Your task to perform on an android device: turn on bluetooth scan Image 0: 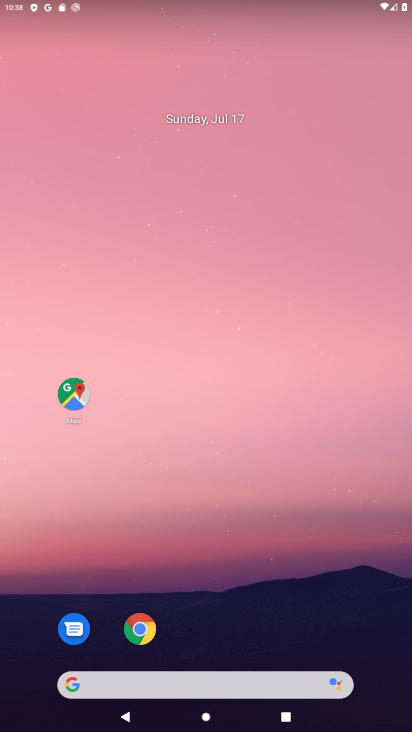
Step 0: click (216, 190)
Your task to perform on an android device: turn on bluetooth scan Image 1: 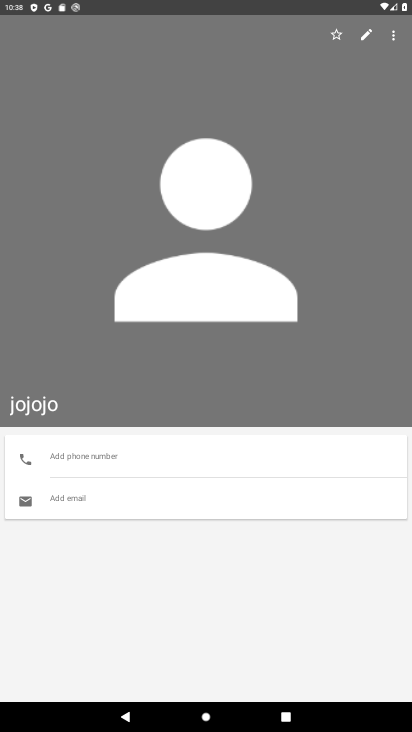
Step 1: press home button
Your task to perform on an android device: turn on bluetooth scan Image 2: 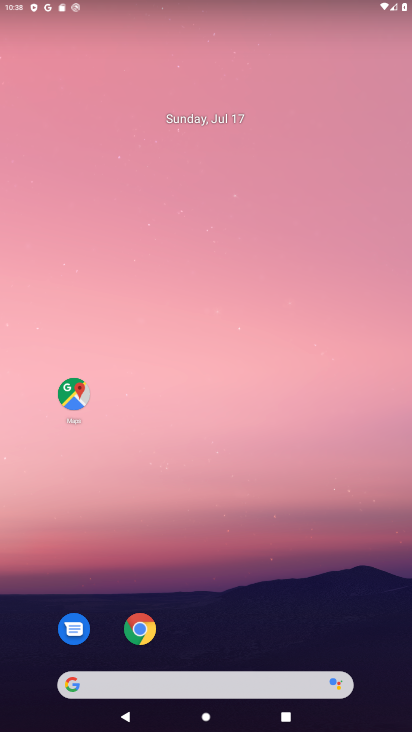
Step 2: drag from (164, 669) to (183, 198)
Your task to perform on an android device: turn on bluetooth scan Image 3: 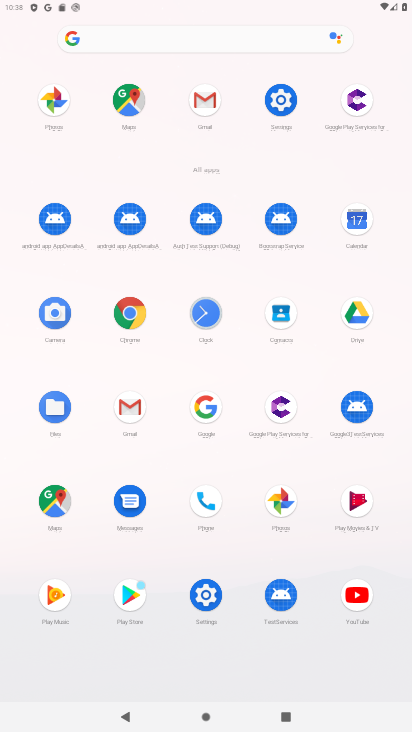
Step 3: click (272, 105)
Your task to perform on an android device: turn on bluetooth scan Image 4: 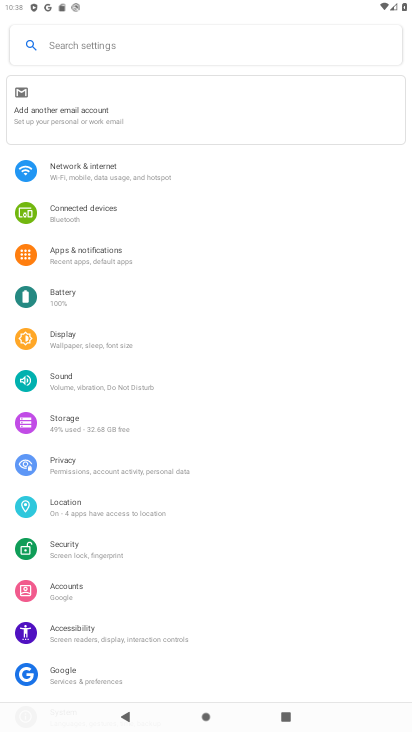
Step 4: click (69, 501)
Your task to perform on an android device: turn on bluetooth scan Image 5: 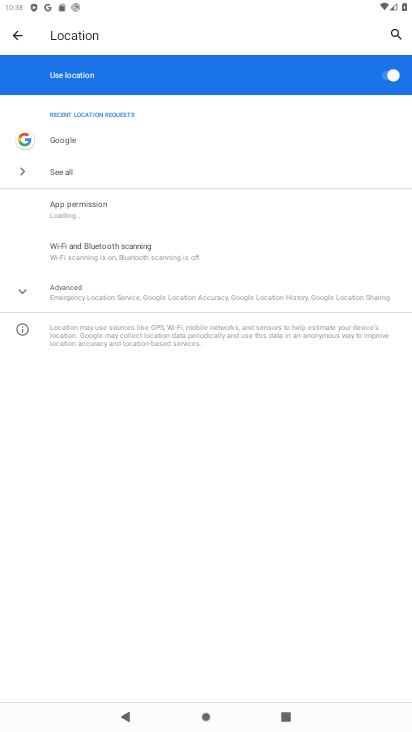
Step 5: click (78, 256)
Your task to perform on an android device: turn on bluetooth scan Image 6: 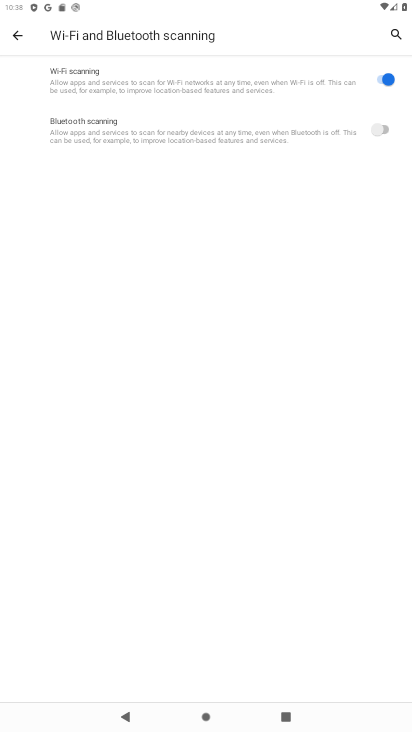
Step 6: click (379, 129)
Your task to perform on an android device: turn on bluetooth scan Image 7: 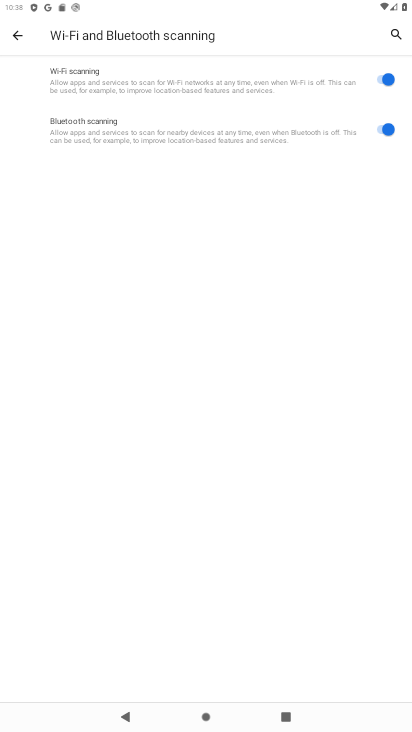
Step 7: task complete